Your task to perform on an android device: Open the Play Movies app and select the watchlist tab. Image 0: 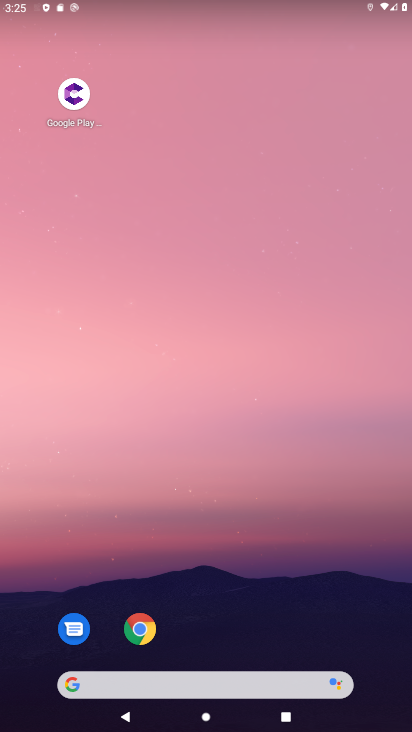
Step 0: drag from (274, 639) to (306, 151)
Your task to perform on an android device: Open the Play Movies app and select the watchlist tab. Image 1: 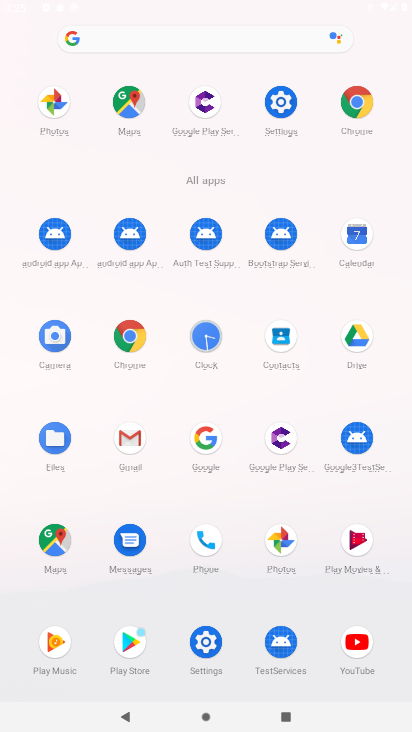
Step 1: click (357, 539)
Your task to perform on an android device: Open the Play Movies app and select the watchlist tab. Image 2: 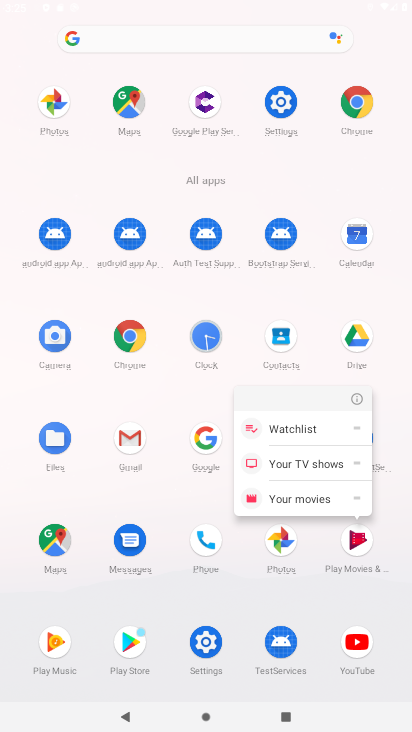
Step 2: click (357, 539)
Your task to perform on an android device: Open the Play Movies app and select the watchlist tab. Image 3: 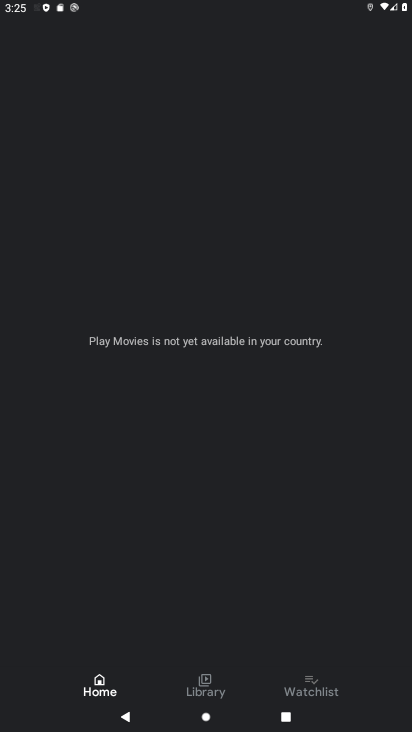
Step 3: click (318, 687)
Your task to perform on an android device: Open the Play Movies app and select the watchlist tab. Image 4: 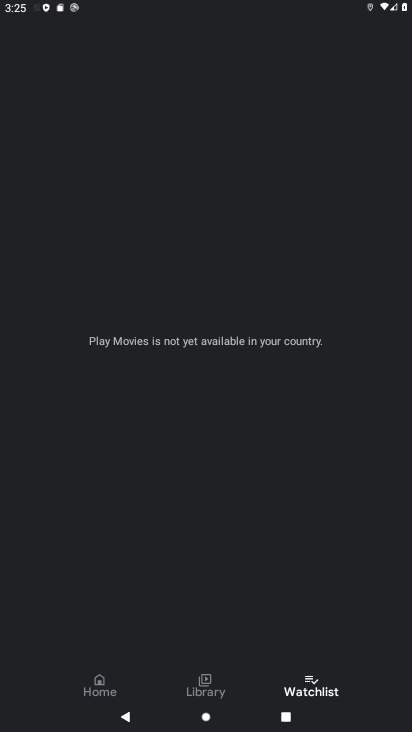
Step 4: task complete